Your task to perform on an android device: Open Amazon Image 0: 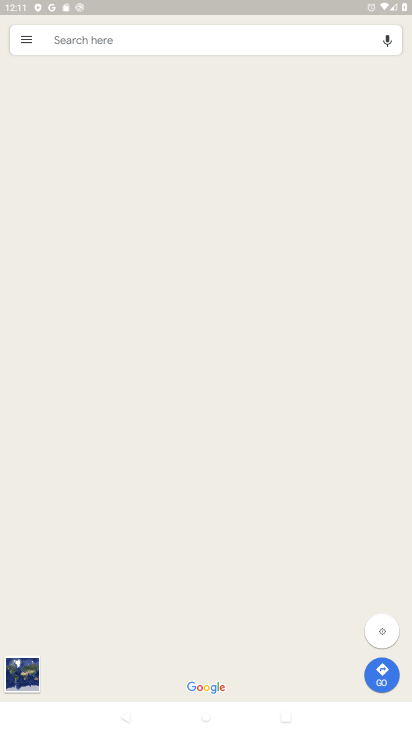
Step 0: press home button
Your task to perform on an android device: Open Amazon Image 1: 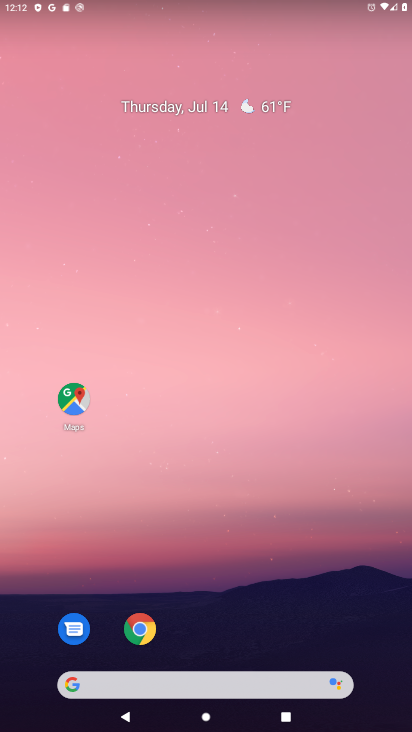
Step 1: click (140, 627)
Your task to perform on an android device: Open Amazon Image 2: 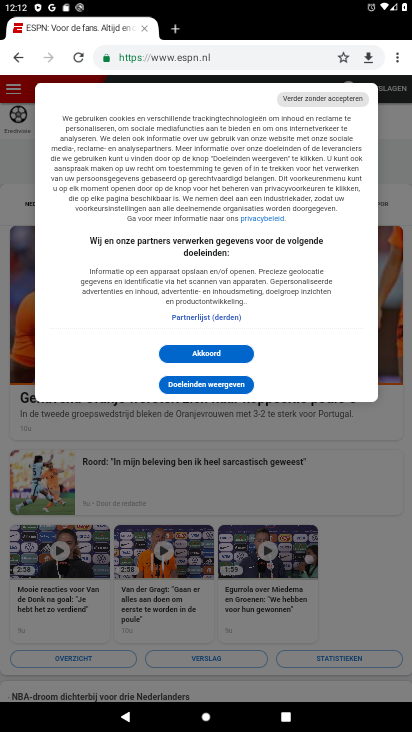
Step 2: click (264, 54)
Your task to perform on an android device: Open Amazon Image 3: 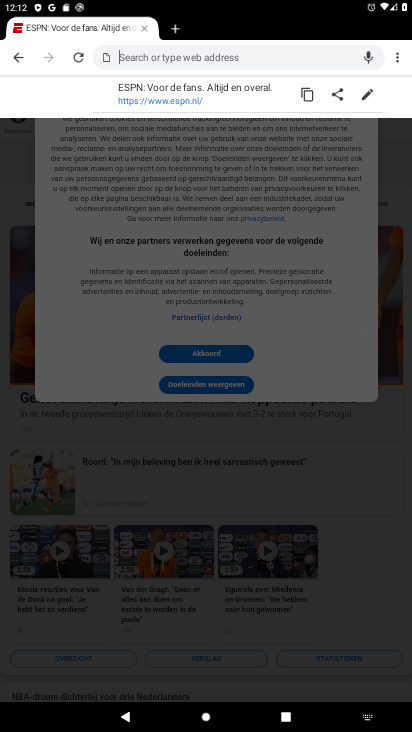
Step 3: type "Amazon"
Your task to perform on an android device: Open Amazon Image 4: 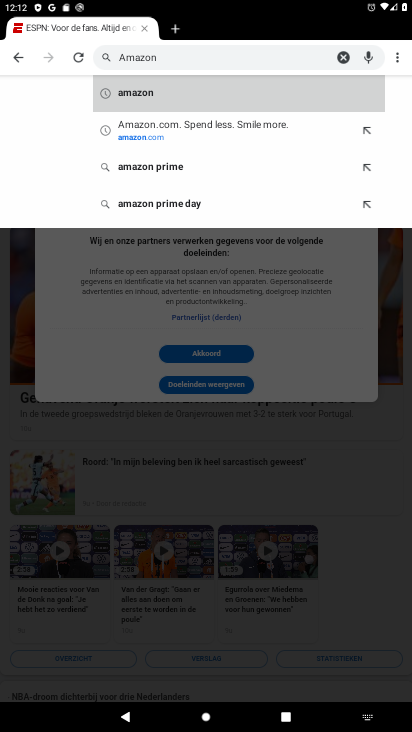
Step 4: click (142, 128)
Your task to perform on an android device: Open Amazon Image 5: 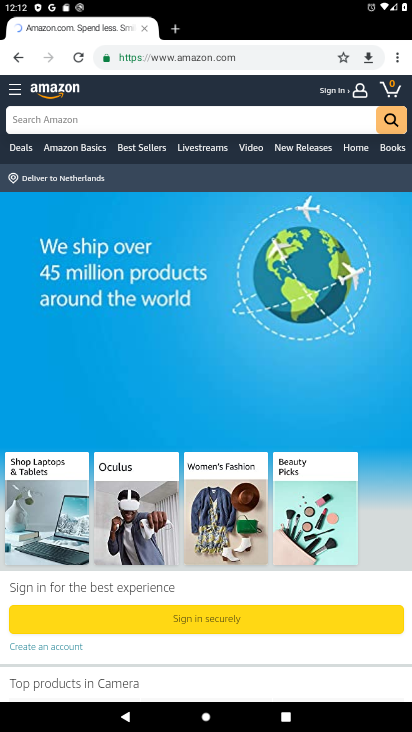
Step 5: task complete